Your task to perform on an android device: Do I have any events this weekend? Image 0: 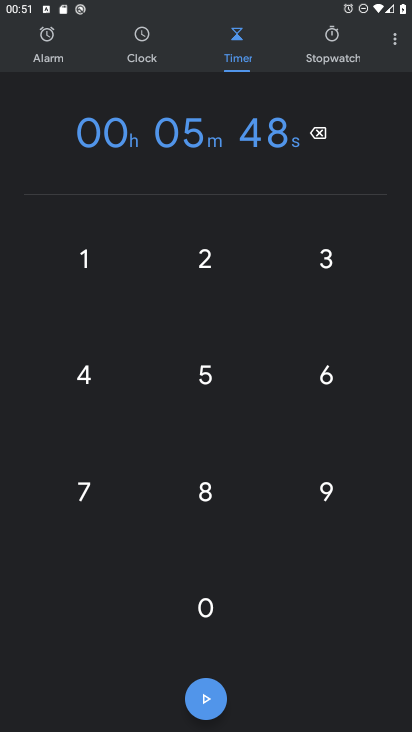
Step 0: press home button
Your task to perform on an android device: Do I have any events this weekend? Image 1: 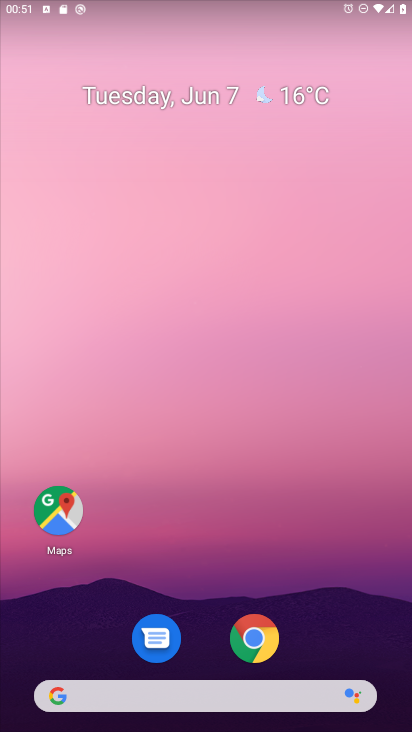
Step 1: drag from (248, 677) to (313, 256)
Your task to perform on an android device: Do I have any events this weekend? Image 2: 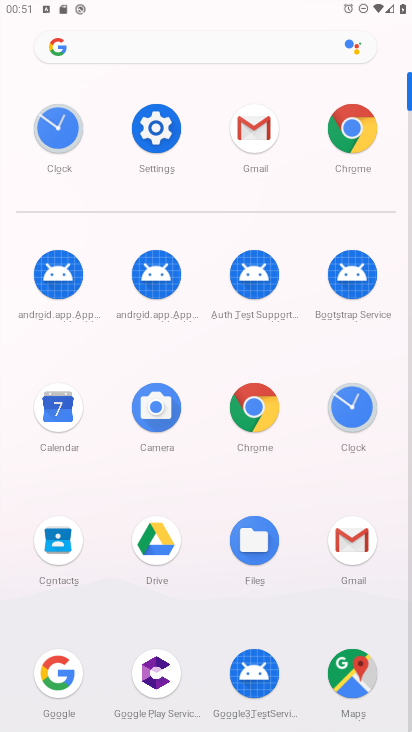
Step 2: click (51, 409)
Your task to perform on an android device: Do I have any events this weekend? Image 3: 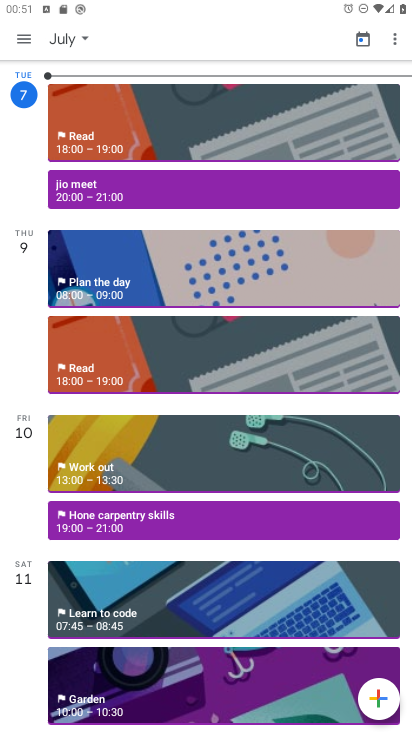
Step 3: click (34, 48)
Your task to perform on an android device: Do I have any events this weekend? Image 4: 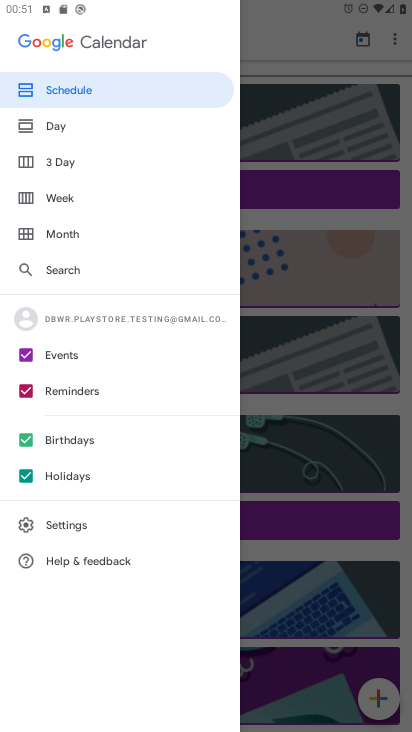
Step 4: click (68, 238)
Your task to perform on an android device: Do I have any events this weekend? Image 5: 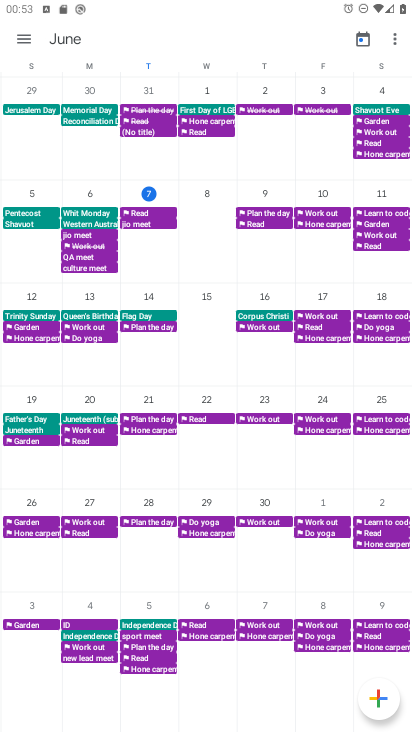
Step 5: click (23, 50)
Your task to perform on an android device: Do I have any events this weekend? Image 6: 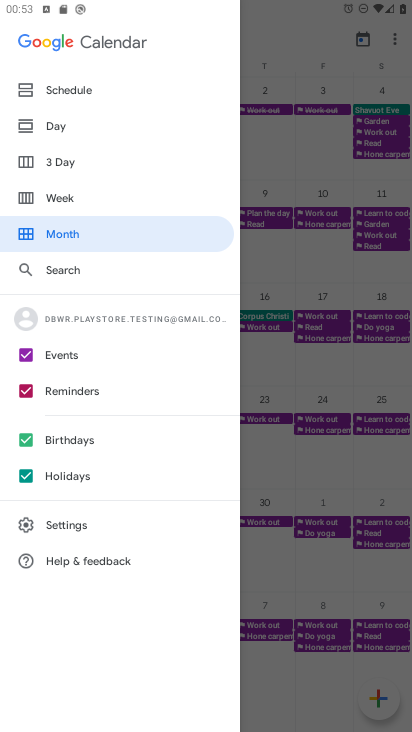
Step 6: click (66, 209)
Your task to perform on an android device: Do I have any events this weekend? Image 7: 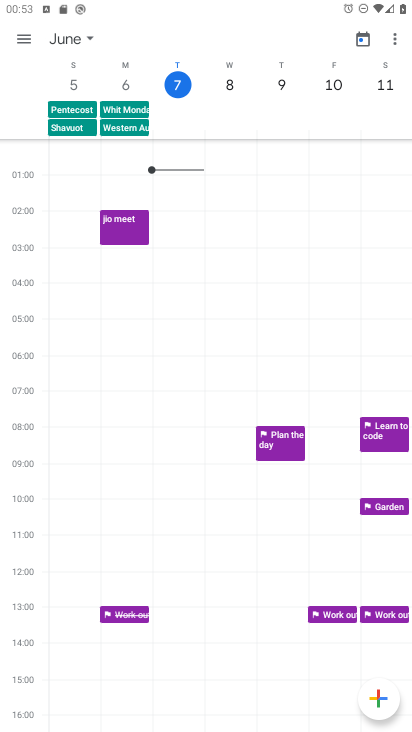
Step 7: task complete